Your task to perform on an android device: move a message to another label in the gmail app Image 0: 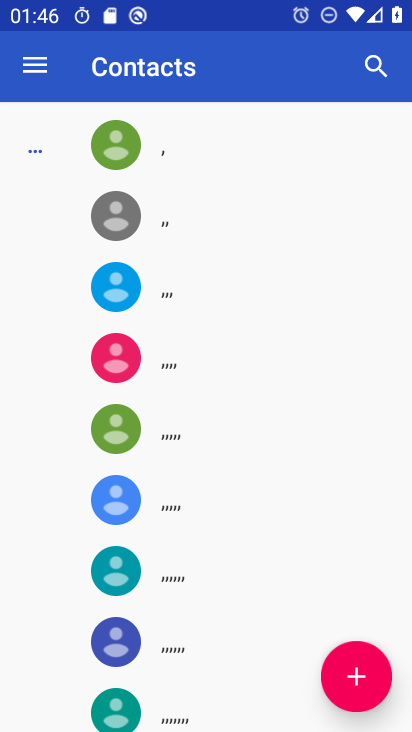
Step 0: press home button
Your task to perform on an android device: move a message to another label in the gmail app Image 1: 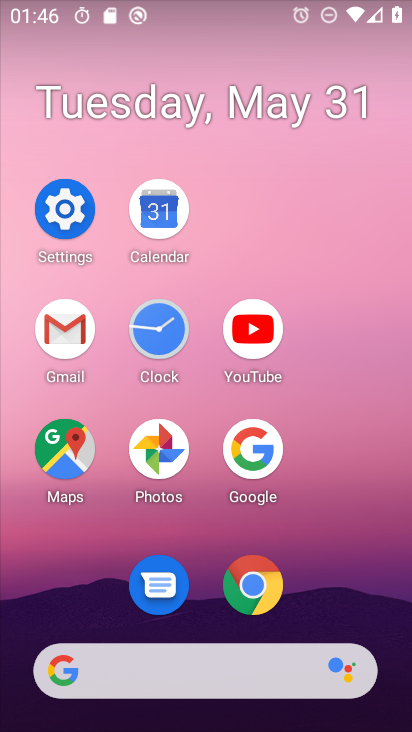
Step 1: click (47, 348)
Your task to perform on an android device: move a message to another label in the gmail app Image 2: 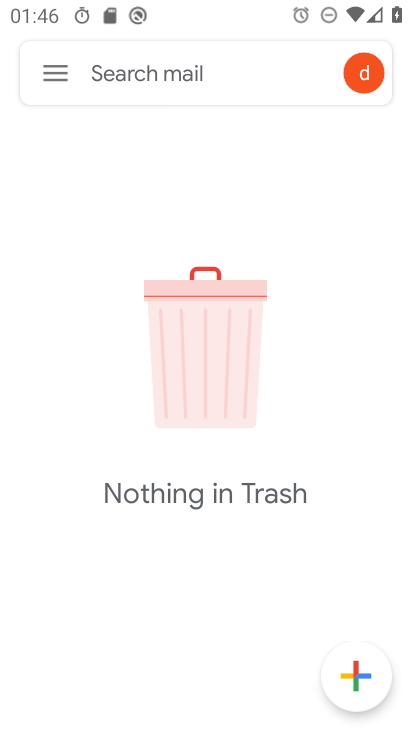
Step 2: click (57, 65)
Your task to perform on an android device: move a message to another label in the gmail app Image 3: 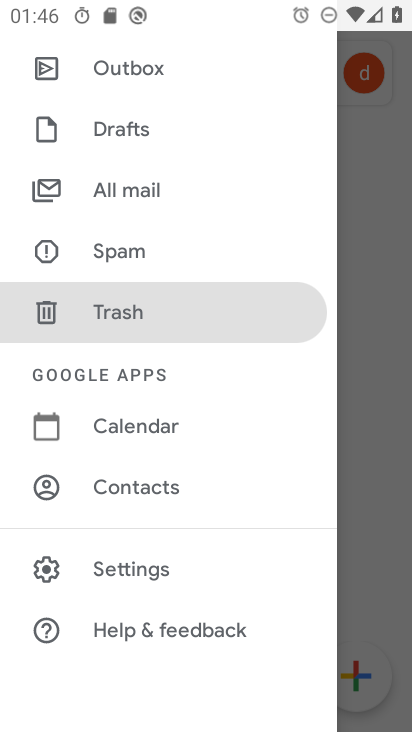
Step 3: click (203, 199)
Your task to perform on an android device: move a message to another label in the gmail app Image 4: 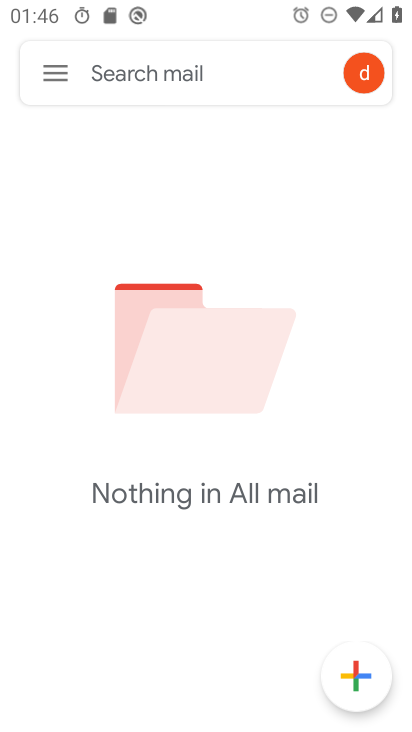
Step 4: task complete